Your task to perform on an android device: add a contact Image 0: 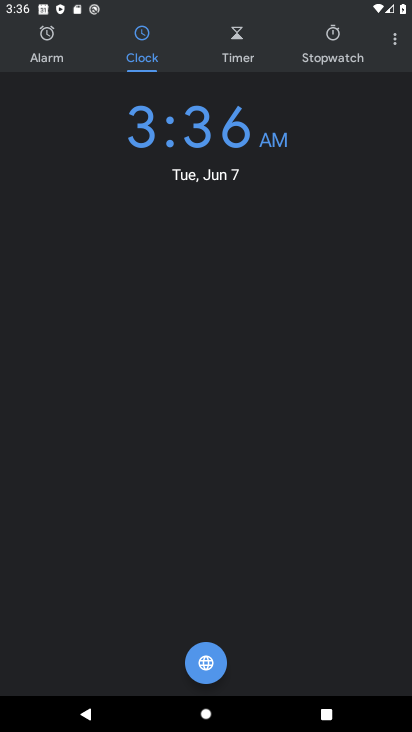
Step 0: press home button
Your task to perform on an android device: add a contact Image 1: 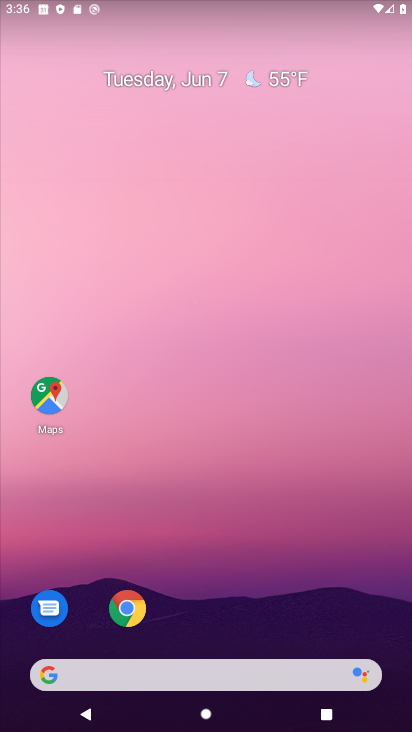
Step 1: drag from (222, 669) to (330, 40)
Your task to perform on an android device: add a contact Image 2: 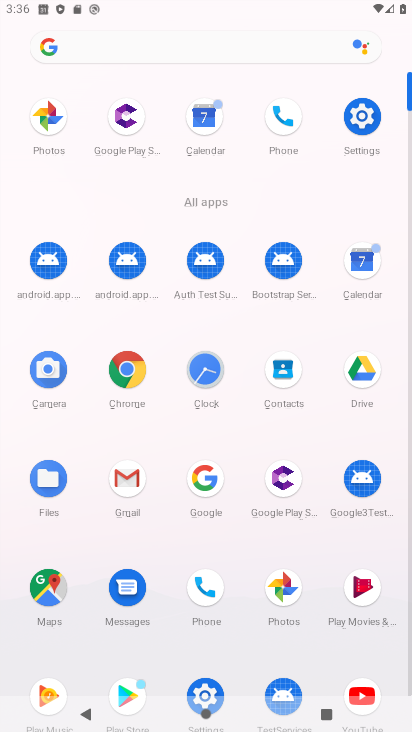
Step 2: click (211, 599)
Your task to perform on an android device: add a contact Image 3: 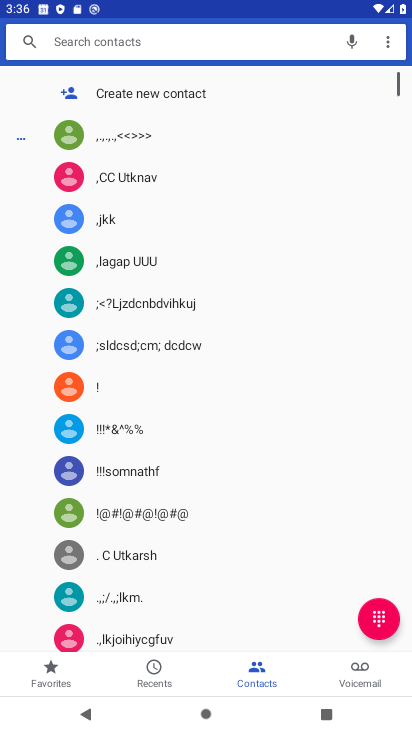
Step 3: click (148, 100)
Your task to perform on an android device: add a contact Image 4: 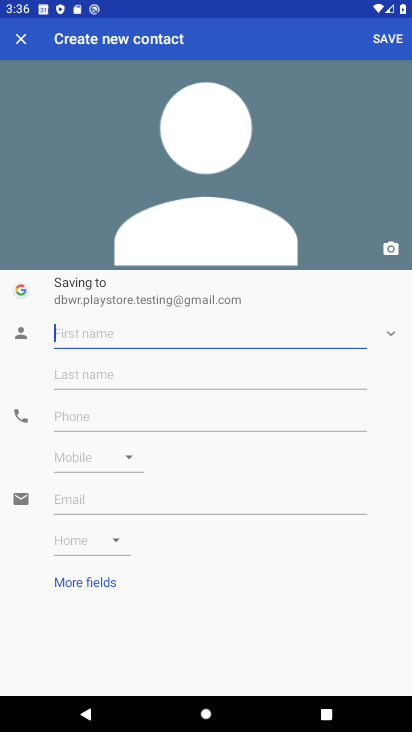
Step 4: type "nnj"
Your task to perform on an android device: add a contact Image 5: 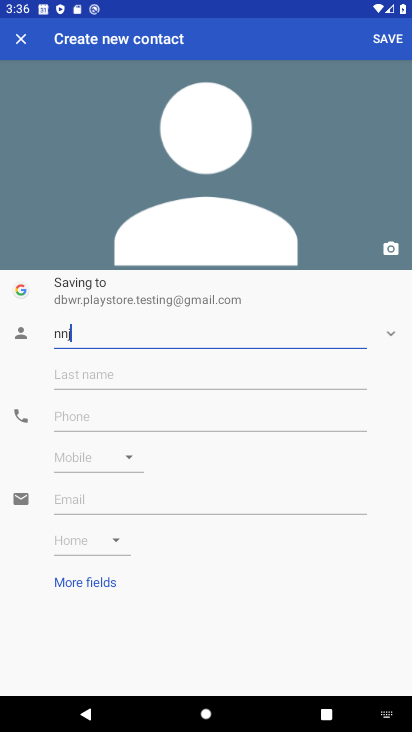
Step 5: type ""
Your task to perform on an android device: add a contact Image 6: 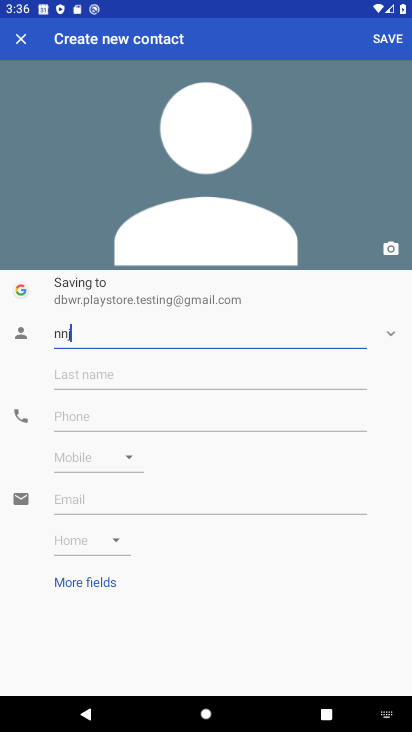
Step 6: click (101, 408)
Your task to perform on an android device: add a contact Image 7: 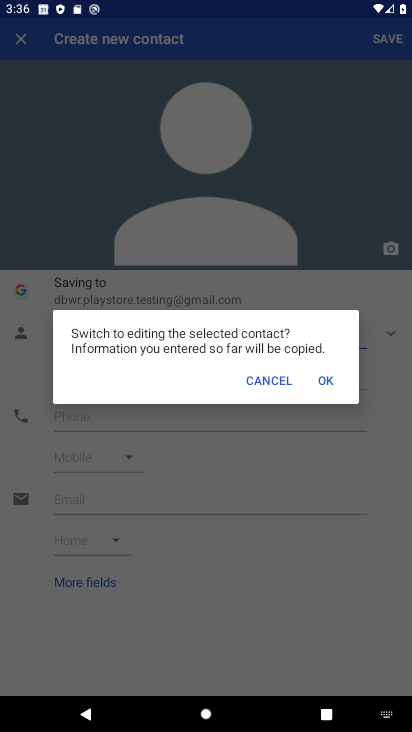
Step 7: type "9i9"
Your task to perform on an android device: add a contact Image 8: 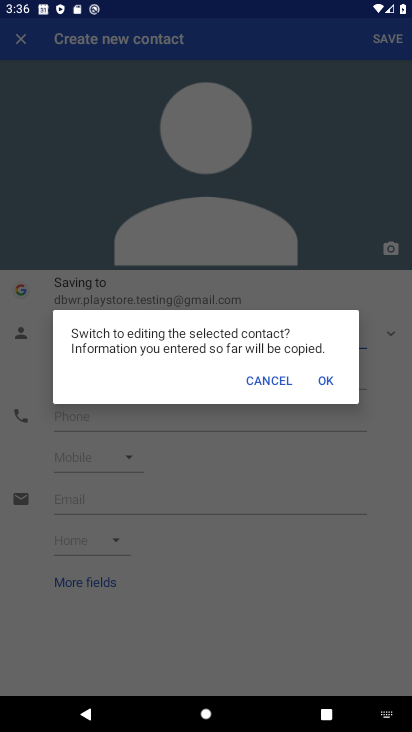
Step 8: type ""
Your task to perform on an android device: add a contact Image 9: 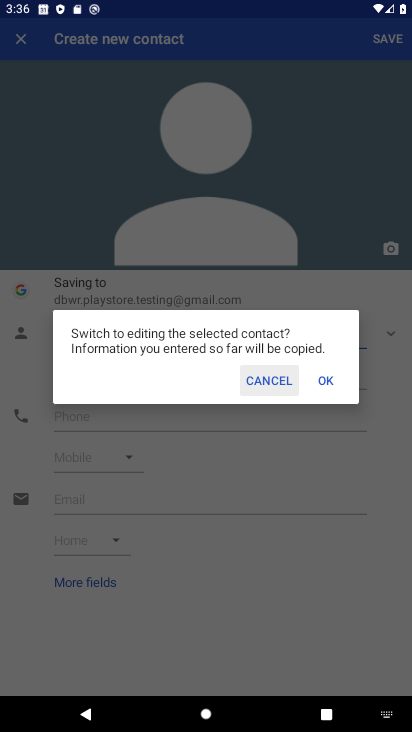
Step 9: click (330, 379)
Your task to perform on an android device: add a contact Image 10: 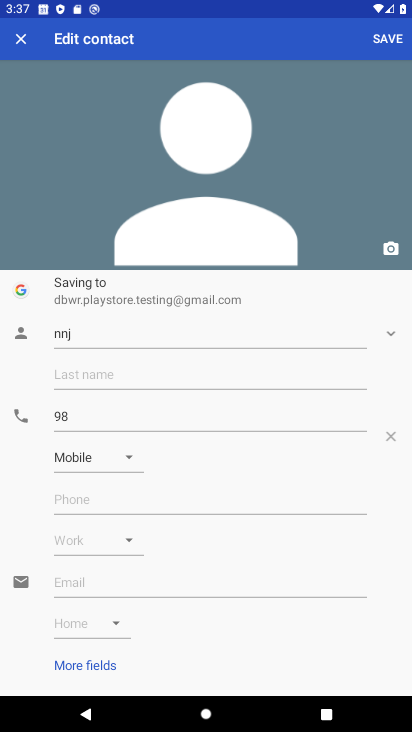
Step 10: click (380, 40)
Your task to perform on an android device: add a contact Image 11: 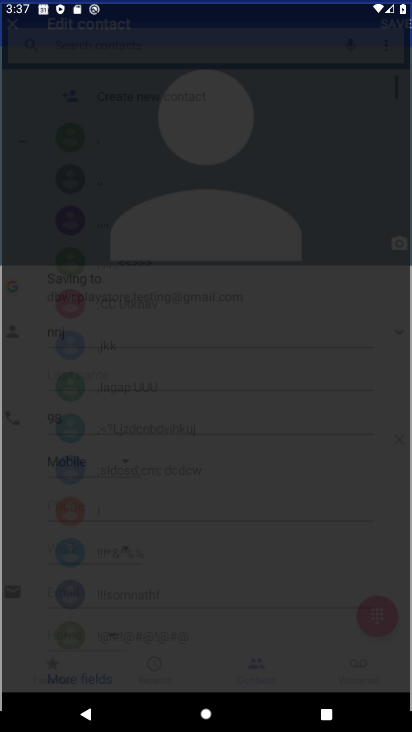
Step 11: task complete